Your task to perform on an android device: toggle pop-ups in chrome Image 0: 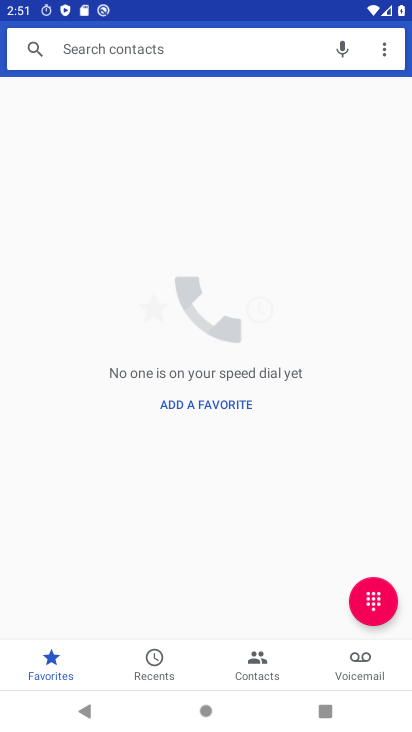
Step 0: press home button
Your task to perform on an android device: toggle pop-ups in chrome Image 1: 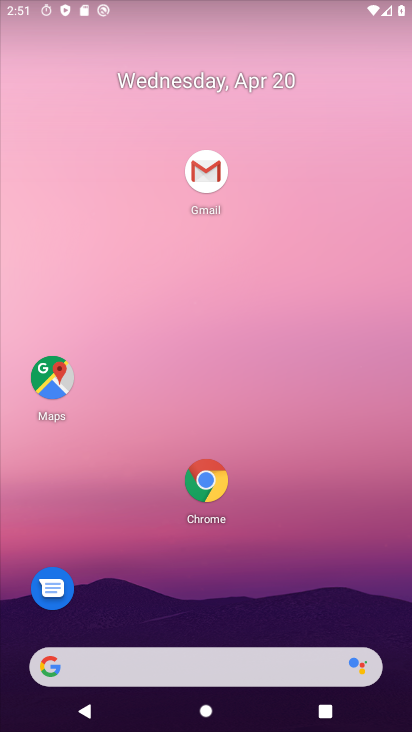
Step 1: drag from (203, 588) to (125, 120)
Your task to perform on an android device: toggle pop-ups in chrome Image 2: 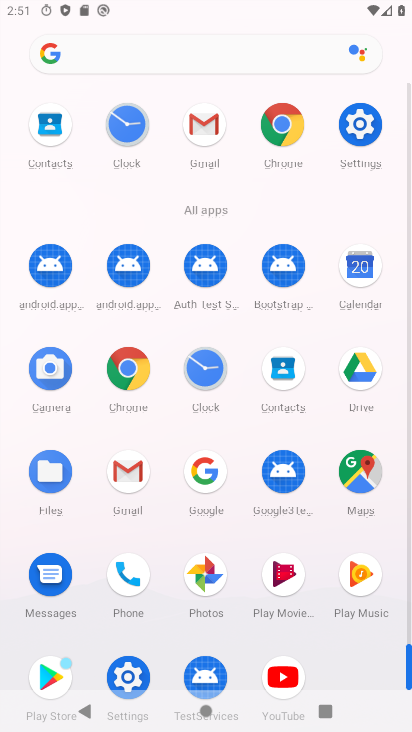
Step 2: drag from (198, 595) to (82, 16)
Your task to perform on an android device: toggle pop-ups in chrome Image 3: 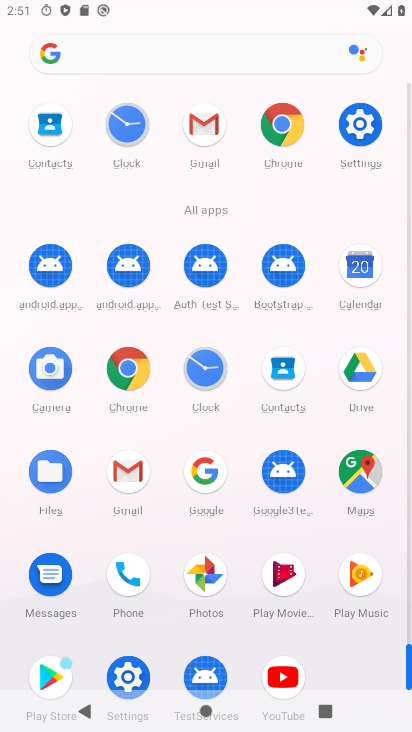
Step 3: click (294, 124)
Your task to perform on an android device: toggle pop-ups in chrome Image 4: 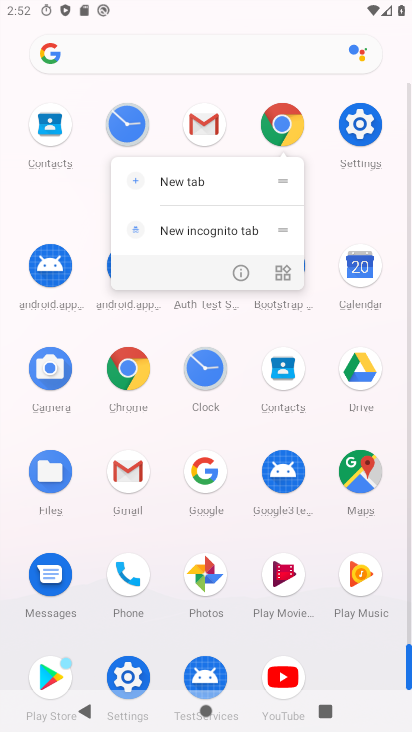
Step 4: click (170, 176)
Your task to perform on an android device: toggle pop-ups in chrome Image 5: 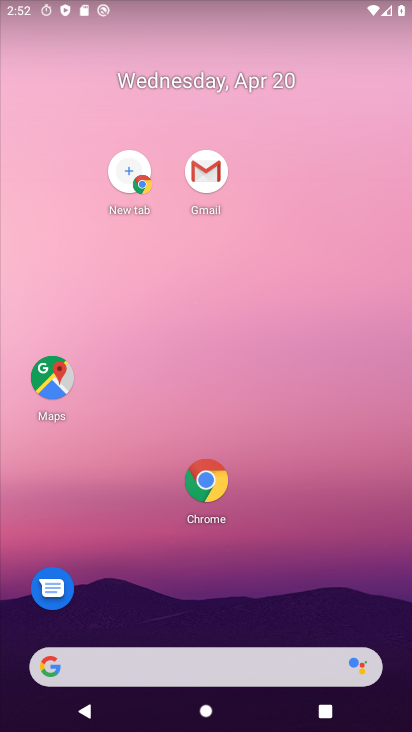
Step 5: click (193, 489)
Your task to perform on an android device: toggle pop-ups in chrome Image 6: 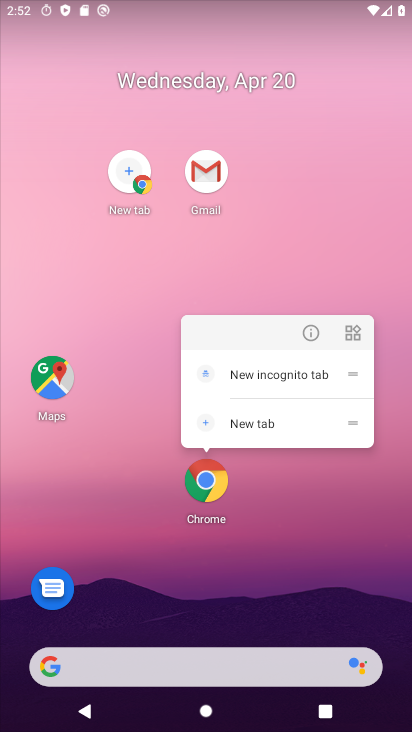
Step 6: click (230, 423)
Your task to perform on an android device: toggle pop-ups in chrome Image 7: 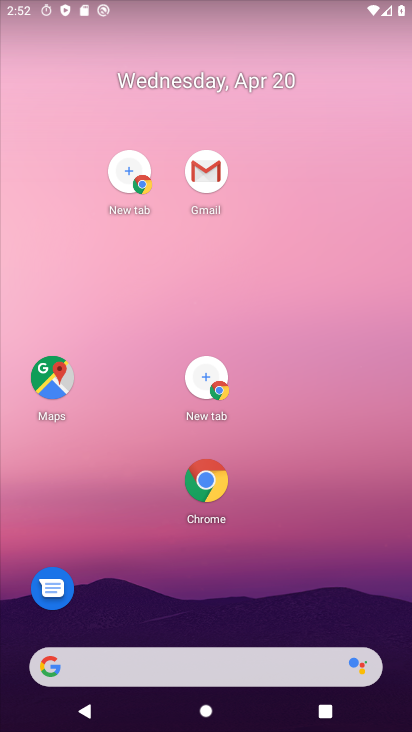
Step 7: click (212, 475)
Your task to perform on an android device: toggle pop-ups in chrome Image 8: 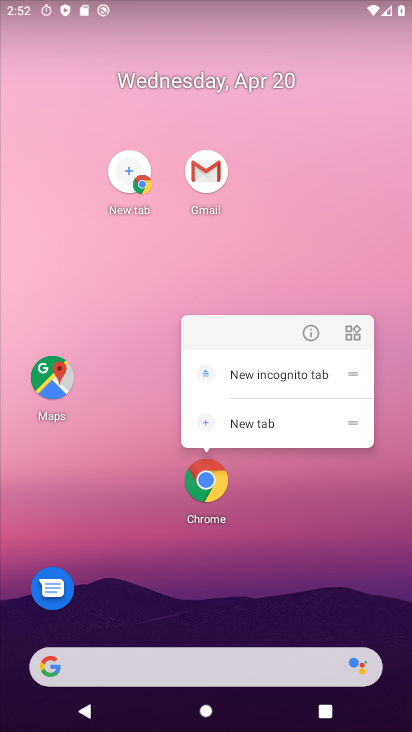
Step 8: click (204, 472)
Your task to perform on an android device: toggle pop-ups in chrome Image 9: 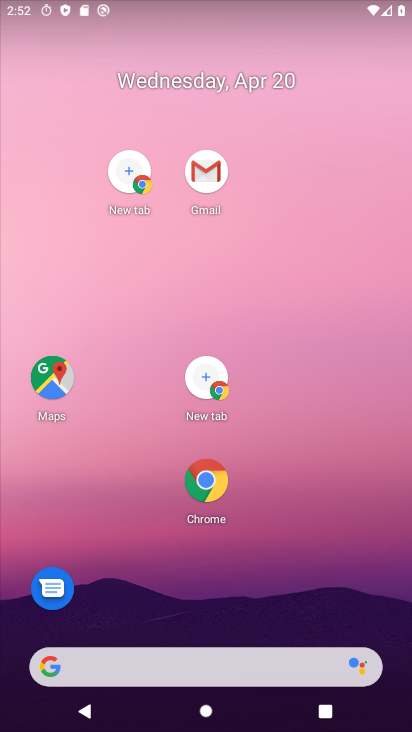
Step 9: click (198, 494)
Your task to perform on an android device: toggle pop-ups in chrome Image 10: 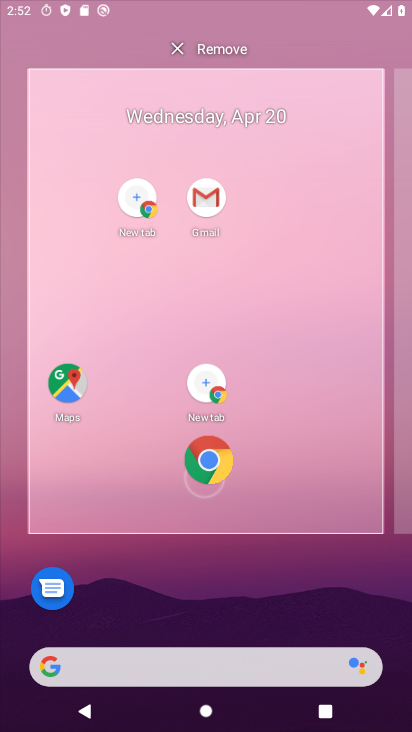
Step 10: click (200, 470)
Your task to perform on an android device: toggle pop-ups in chrome Image 11: 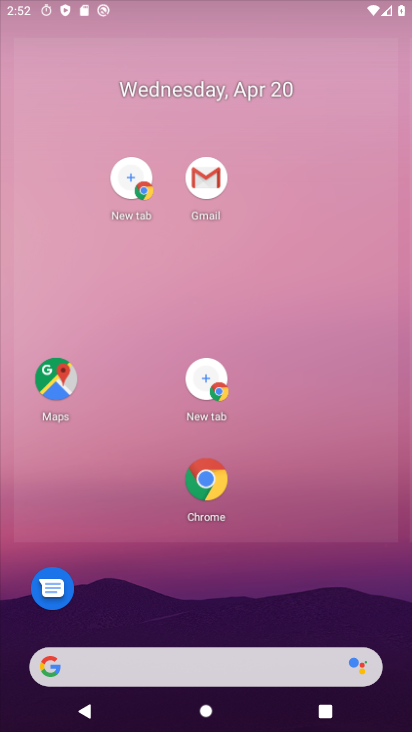
Step 11: click (217, 461)
Your task to perform on an android device: toggle pop-ups in chrome Image 12: 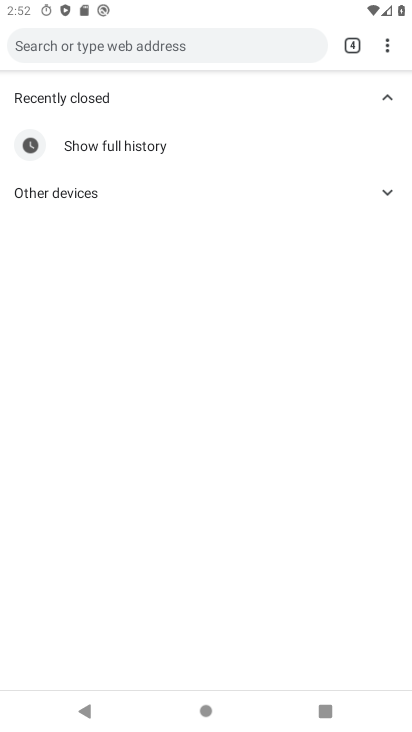
Step 12: drag from (384, 44) to (158, 559)
Your task to perform on an android device: toggle pop-ups in chrome Image 13: 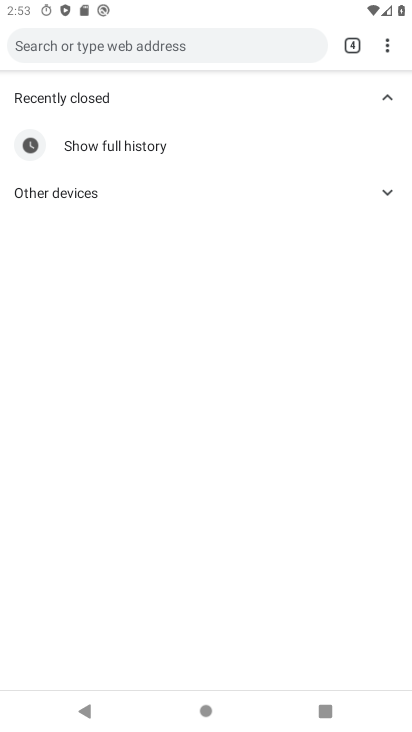
Step 13: click (208, 379)
Your task to perform on an android device: toggle pop-ups in chrome Image 14: 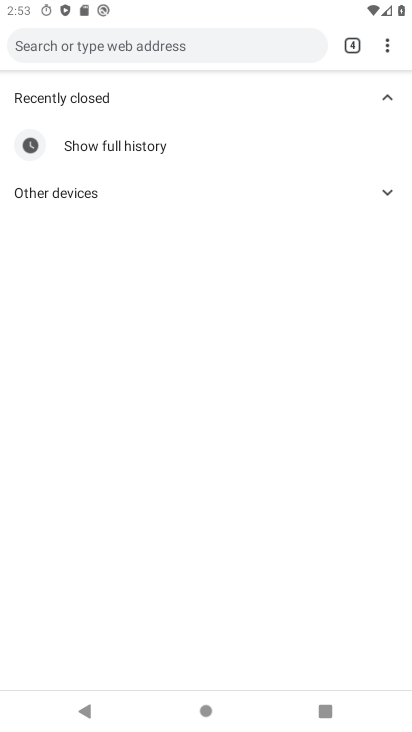
Step 14: drag from (380, 42) to (230, 382)
Your task to perform on an android device: toggle pop-ups in chrome Image 15: 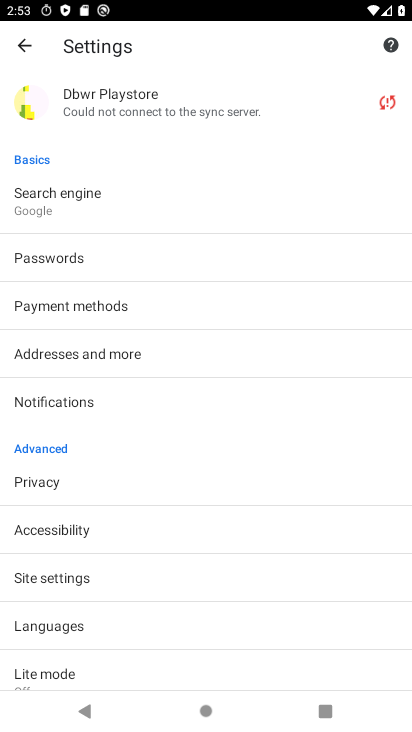
Step 15: click (59, 572)
Your task to perform on an android device: toggle pop-ups in chrome Image 16: 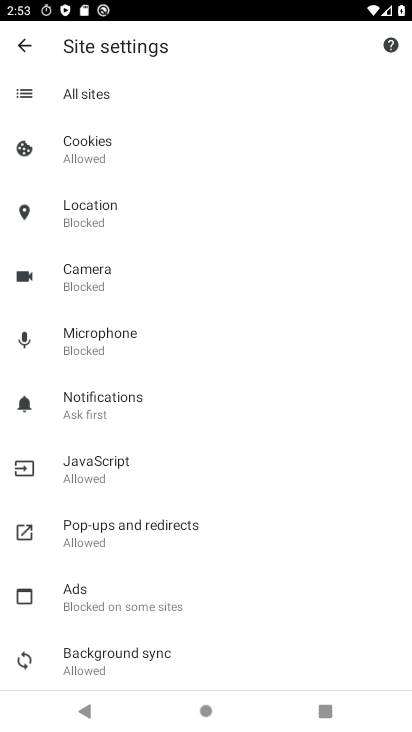
Step 16: click (95, 529)
Your task to perform on an android device: toggle pop-ups in chrome Image 17: 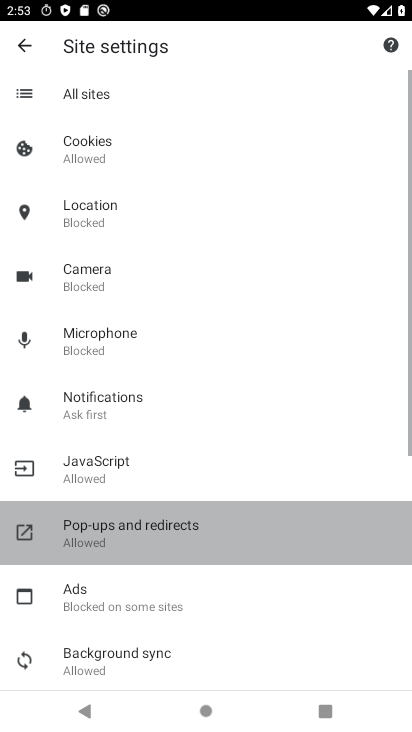
Step 17: click (95, 529)
Your task to perform on an android device: toggle pop-ups in chrome Image 18: 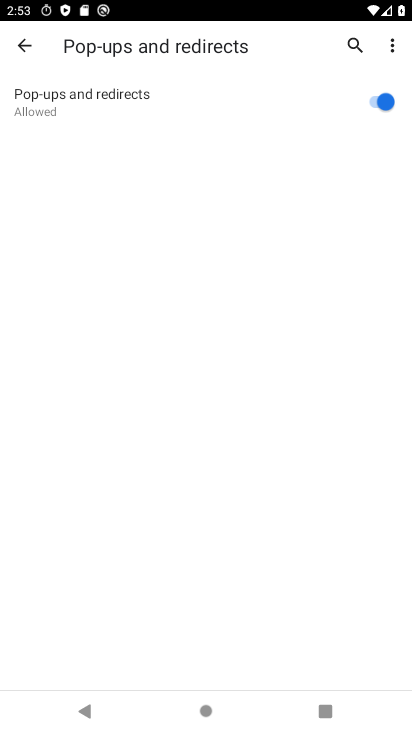
Step 18: task complete